Your task to perform on an android device: turn on priority inbox in the gmail app Image 0: 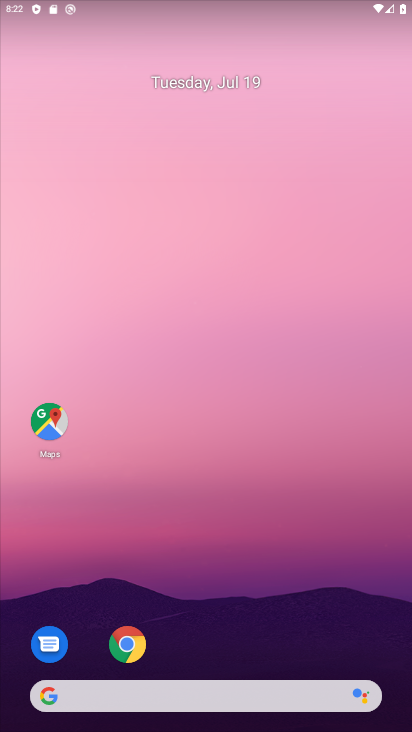
Step 0: drag from (195, 186) to (227, 105)
Your task to perform on an android device: turn on priority inbox in the gmail app Image 1: 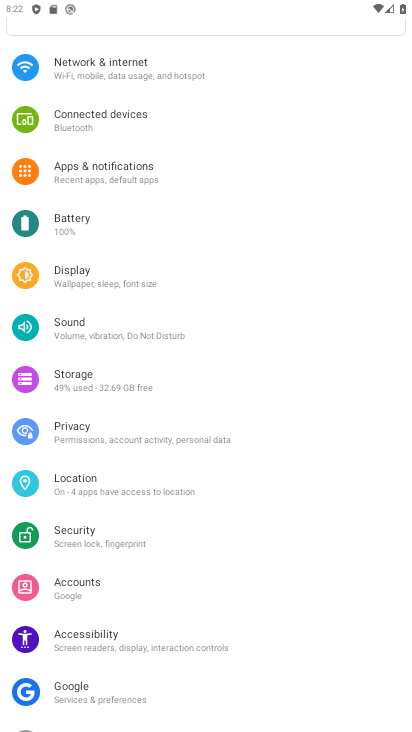
Step 1: press home button
Your task to perform on an android device: turn on priority inbox in the gmail app Image 2: 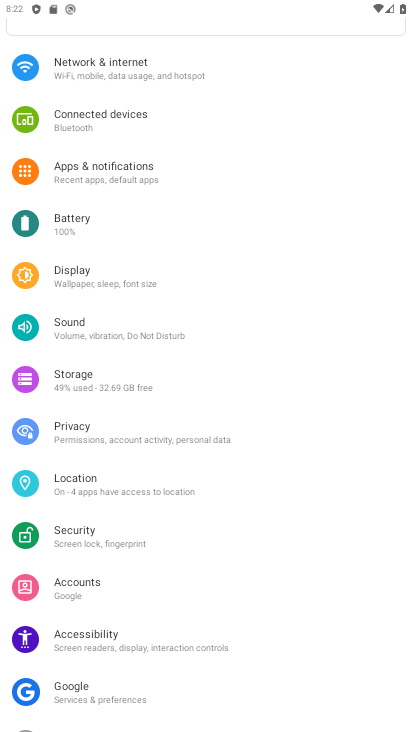
Step 2: press home button
Your task to perform on an android device: turn on priority inbox in the gmail app Image 3: 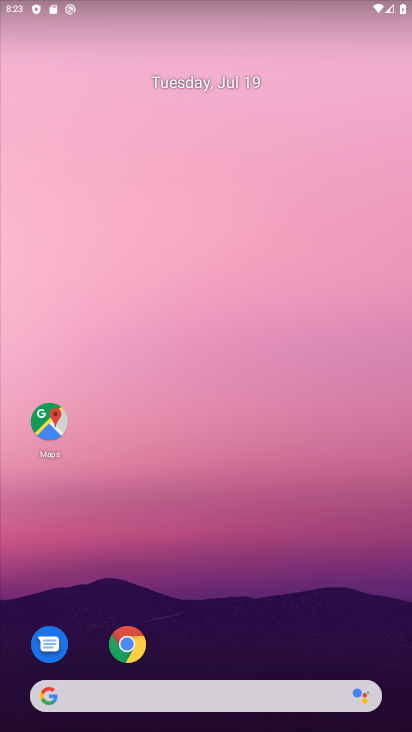
Step 3: drag from (218, 625) to (221, 212)
Your task to perform on an android device: turn on priority inbox in the gmail app Image 4: 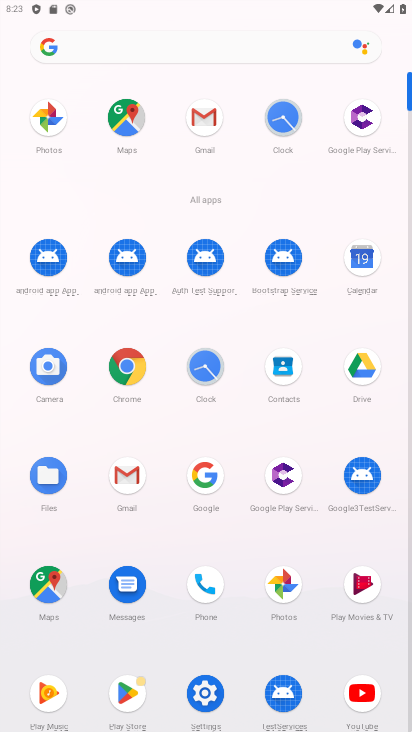
Step 4: click (204, 116)
Your task to perform on an android device: turn on priority inbox in the gmail app Image 5: 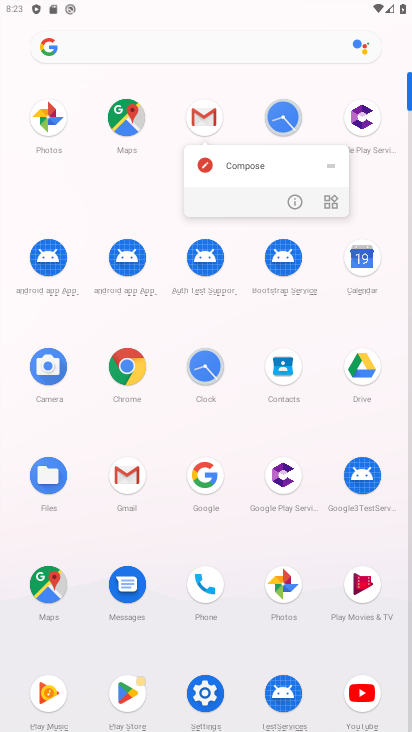
Step 5: click (295, 206)
Your task to perform on an android device: turn on priority inbox in the gmail app Image 6: 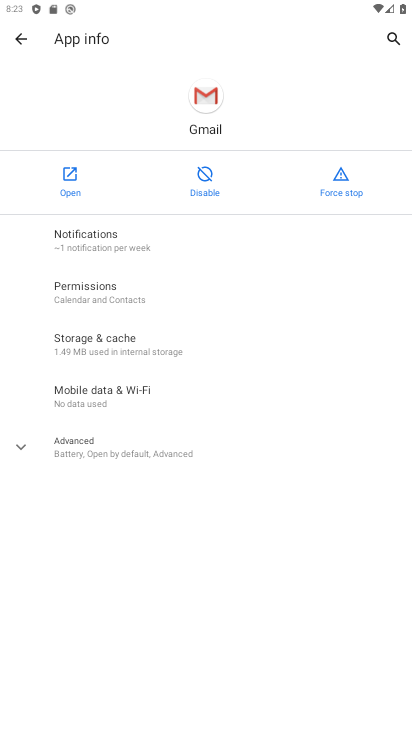
Step 6: click (60, 190)
Your task to perform on an android device: turn on priority inbox in the gmail app Image 7: 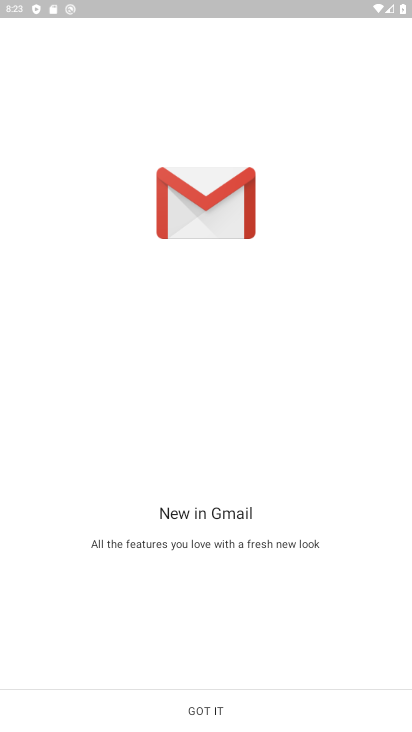
Step 7: click (192, 725)
Your task to perform on an android device: turn on priority inbox in the gmail app Image 8: 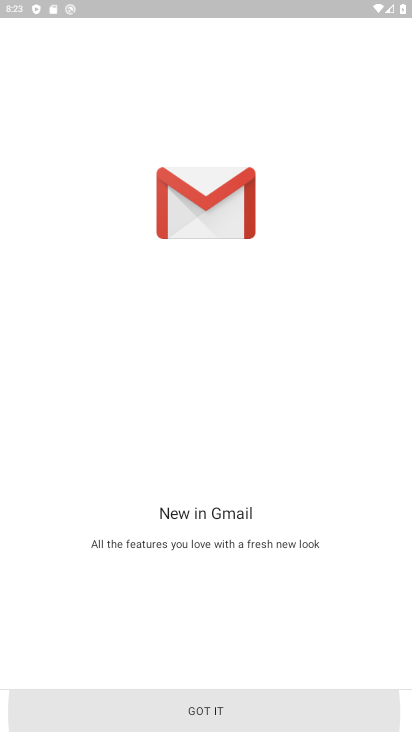
Step 8: click (186, 712)
Your task to perform on an android device: turn on priority inbox in the gmail app Image 9: 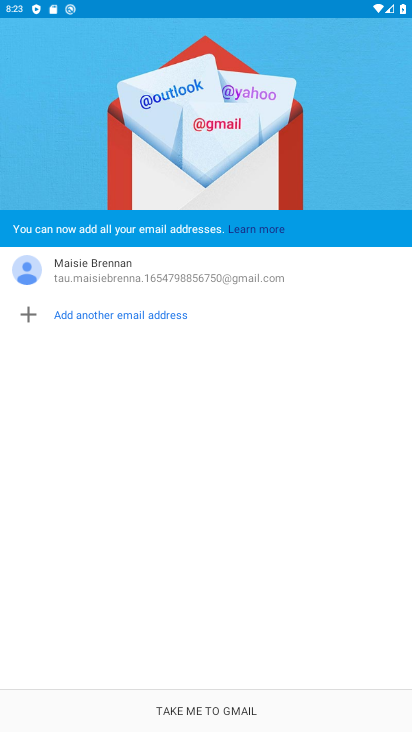
Step 9: click (189, 707)
Your task to perform on an android device: turn on priority inbox in the gmail app Image 10: 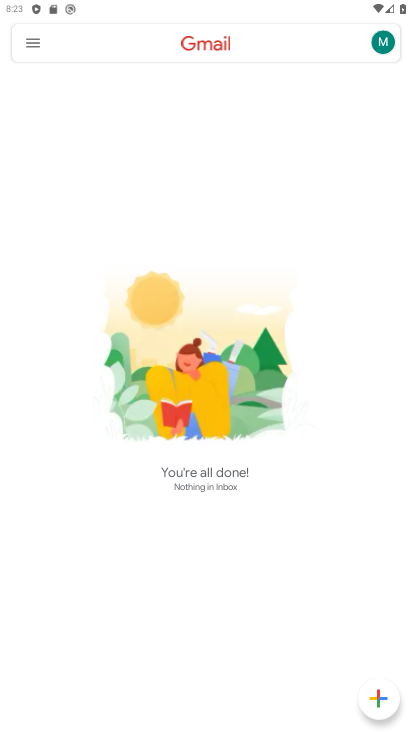
Step 10: drag from (191, 410) to (205, 284)
Your task to perform on an android device: turn on priority inbox in the gmail app Image 11: 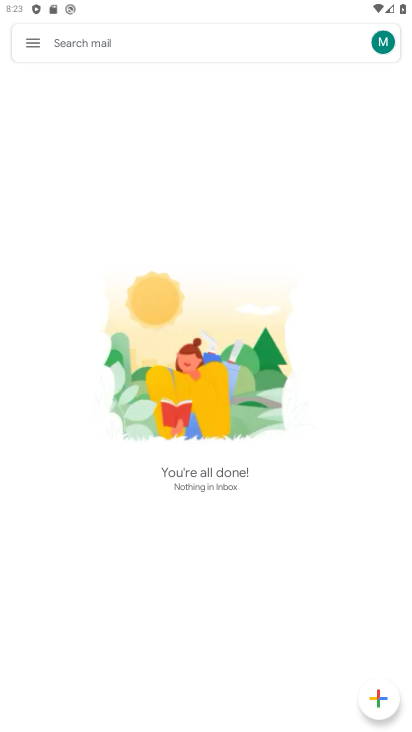
Step 11: click (31, 44)
Your task to perform on an android device: turn on priority inbox in the gmail app Image 12: 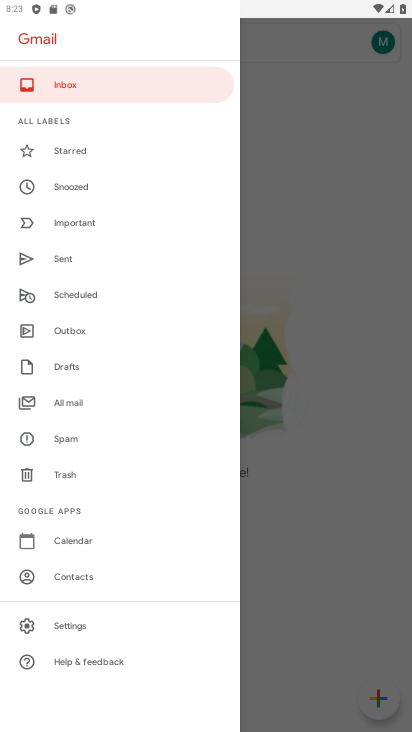
Step 12: drag from (122, 574) to (101, 174)
Your task to perform on an android device: turn on priority inbox in the gmail app Image 13: 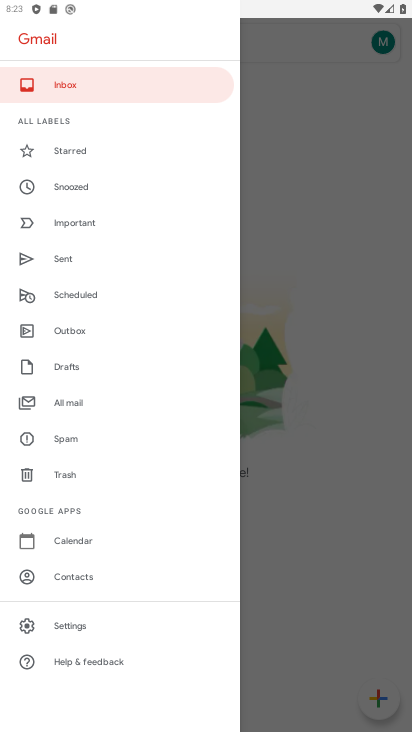
Step 13: click (65, 623)
Your task to perform on an android device: turn on priority inbox in the gmail app Image 14: 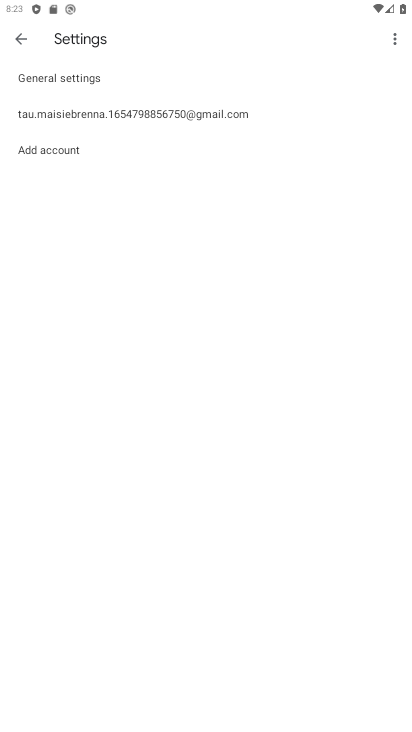
Step 14: click (98, 114)
Your task to perform on an android device: turn on priority inbox in the gmail app Image 15: 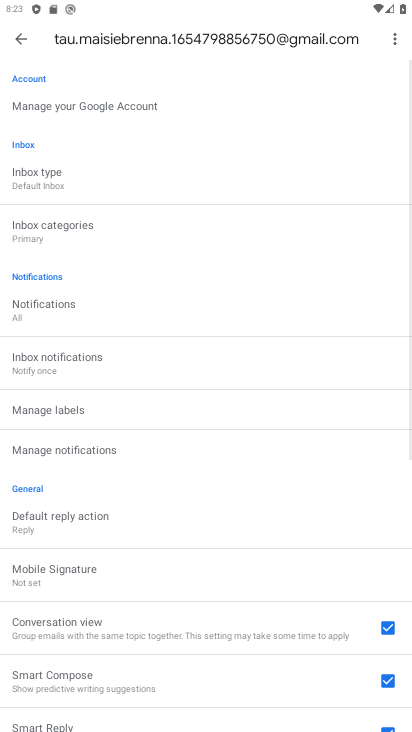
Step 15: drag from (220, 604) to (220, 279)
Your task to perform on an android device: turn on priority inbox in the gmail app Image 16: 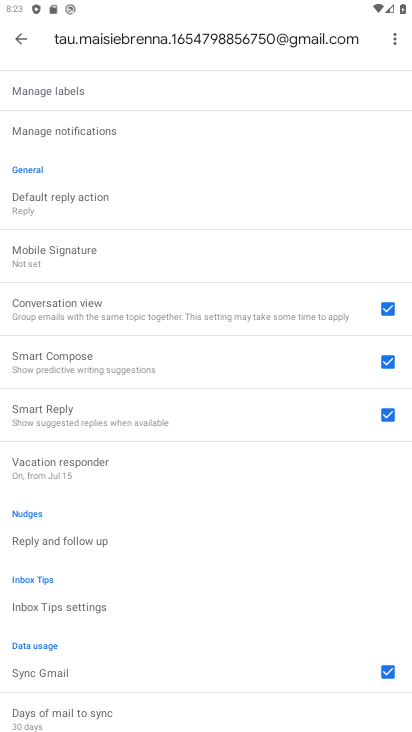
Step 16: drag from (156, 212) to (225, 730)
Your task to perform on an android device: turn on priority inbox in the gmail app Image 17: 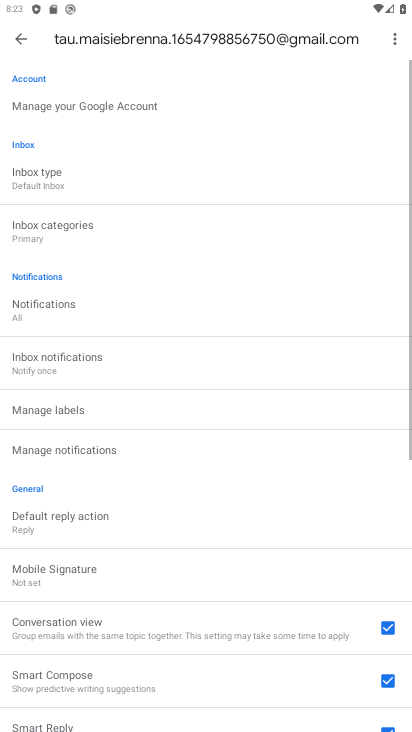
Step 17: click (97, 181)
Your task to perform on an android device: turn on priority inbox in the gmail app Image 18: 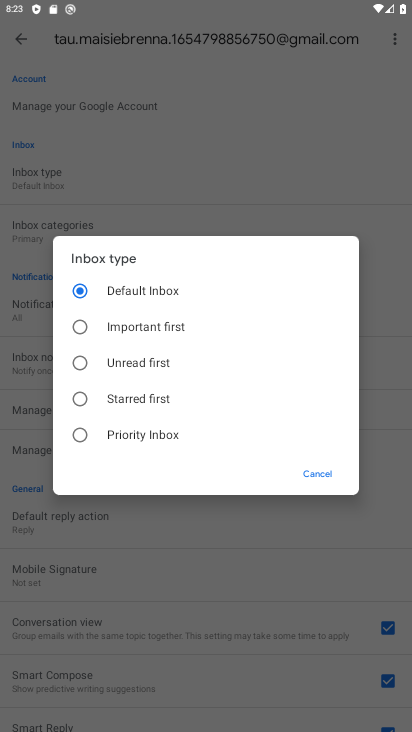
Step 18: click (105, 429)
Your task to perform on an android device: turn on priority inbox in the gmail app Image 19: 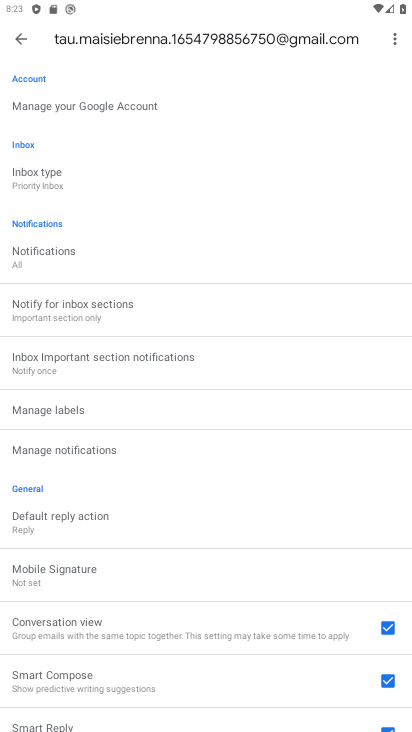
Step 19: task complete